Your task to perform on an android device: open a new tab in the chrome app Image 0: 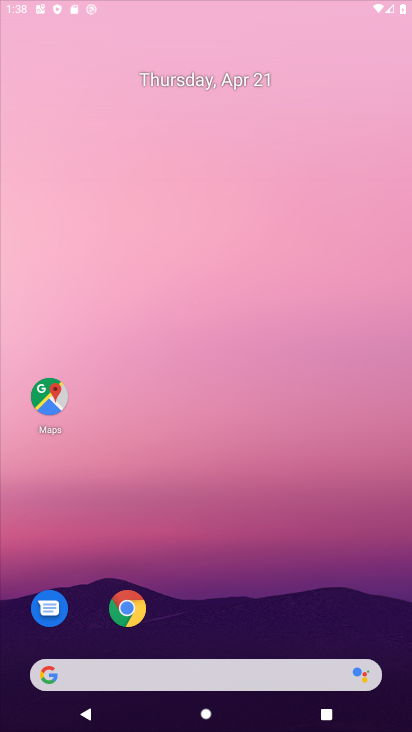
Step 0: click (306, 34)
Your task to perform on an android device: open a new tab in the chrome app Image 1: 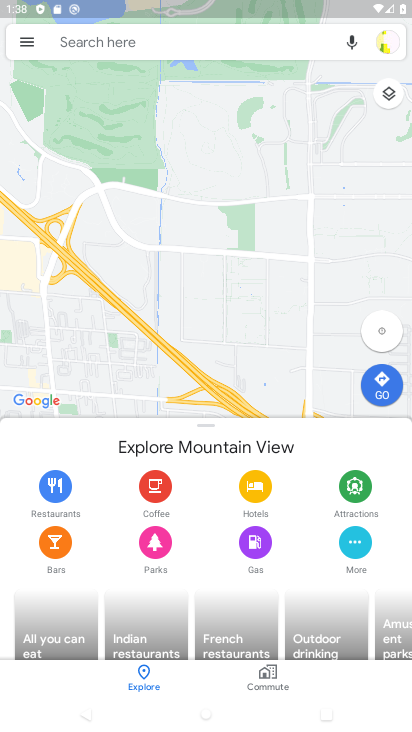
Step 1: press home button
Your task to perform on an android device: open a new tab in the chrome app Image 2: 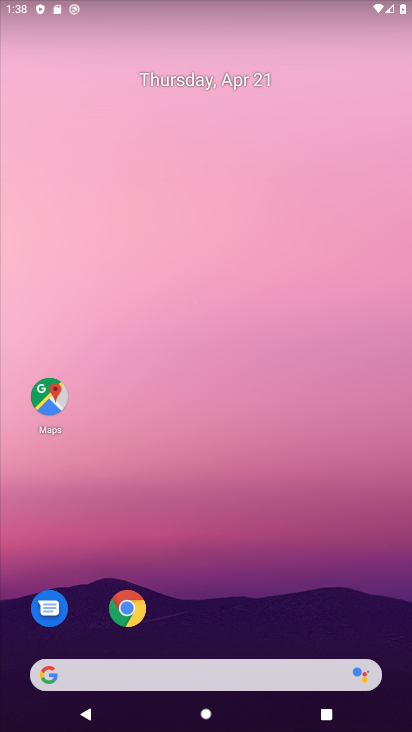
Step 2: drag from (287, 603) to (304, 81)
Your task to perform on an android device: open a new tab in the chrome app Image 3: 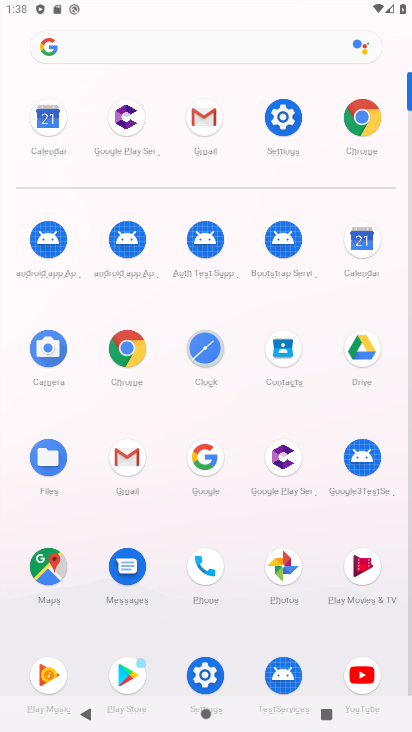
Step 3: click (365, 104)
Your task to perform on an android device: open a new tab in the chrome app Image 4: 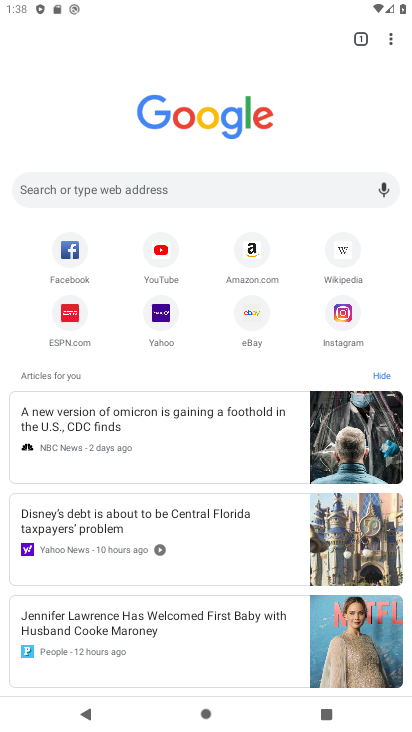
Step 4: click (377, 38)
Your task to perform on an android device: open a new tab in the chrome app Image 5: 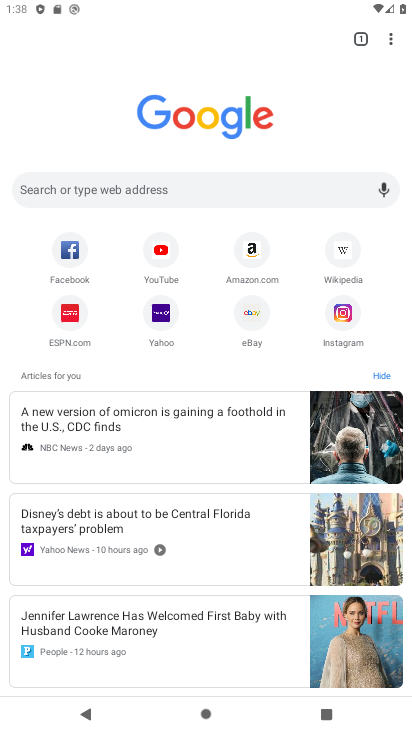
Step 5: click (391, 41)
Your task to perform on an android device: open a new tab in the chrome app Image 6: 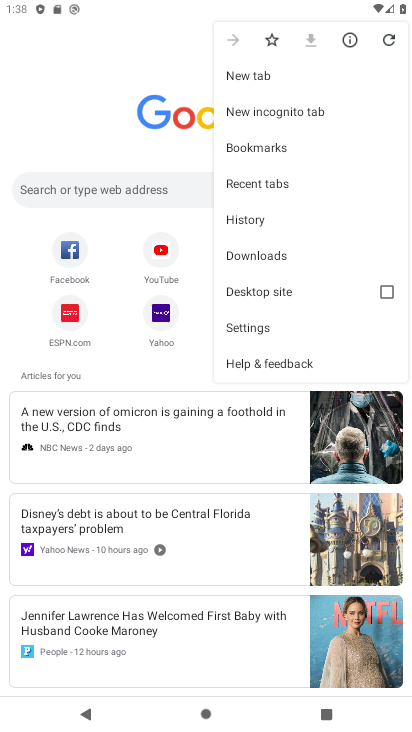
Step 6: click (239, 81)
Your task to perform on an android device: open a new tab in the chrome app Image 7: 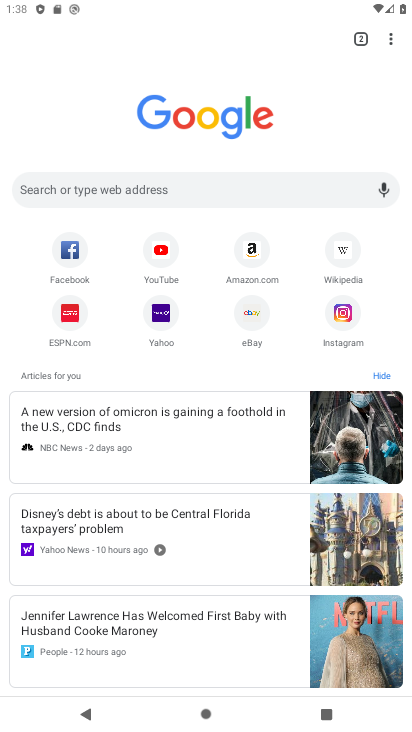
Step 7: task complete